Your task to perform on an android device: set an alarm Image 0: 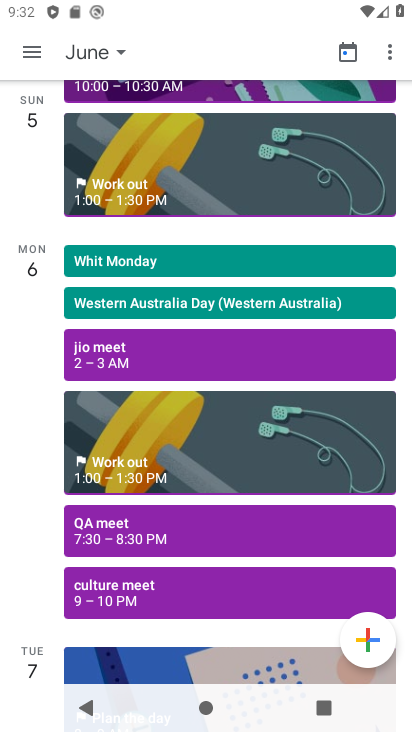
Step 0: press home button
Your task to perform on an android device: set an alarm Image 1: 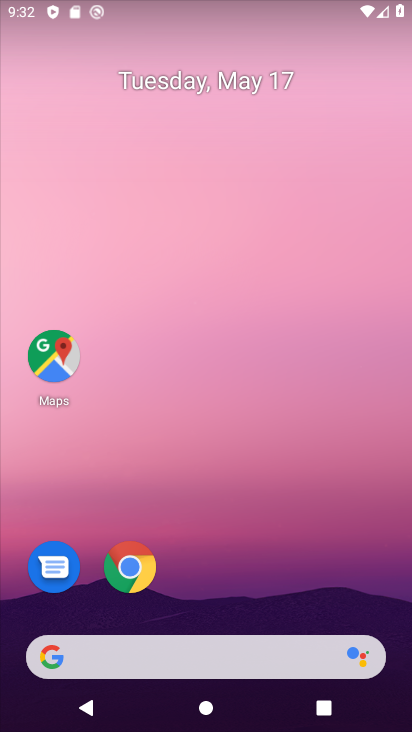
Step 1: drag from (254, 590) to (133, 107)
Your task to perform on an android device: set an alarm Image 2: 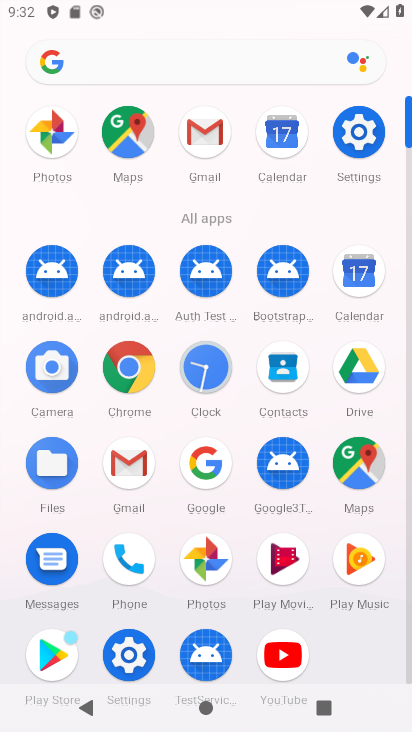
Step 2: click (206, 396)
Your task to perform on an android device: set an alarm Image 3: 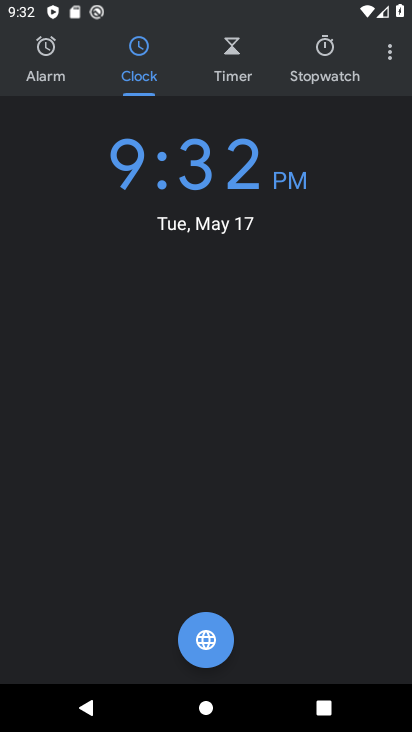
Step 3: click (32, 60)
Your task to perform on an android device: set an alarm Image 4: 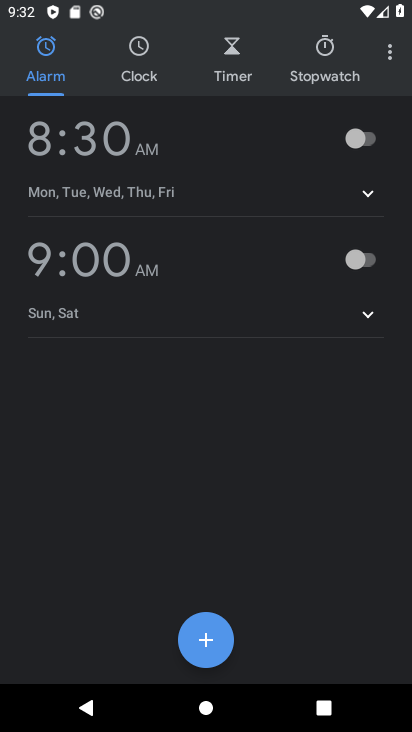
Step 4: click (370, 266)
Your task to perform on an android device: set an alarm Image 5: 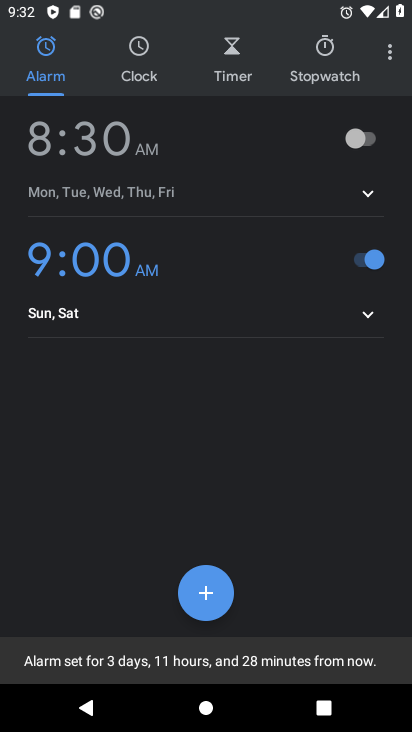
Step 5: task complete